Your task to perform on an android device: change the clock style Image 0: 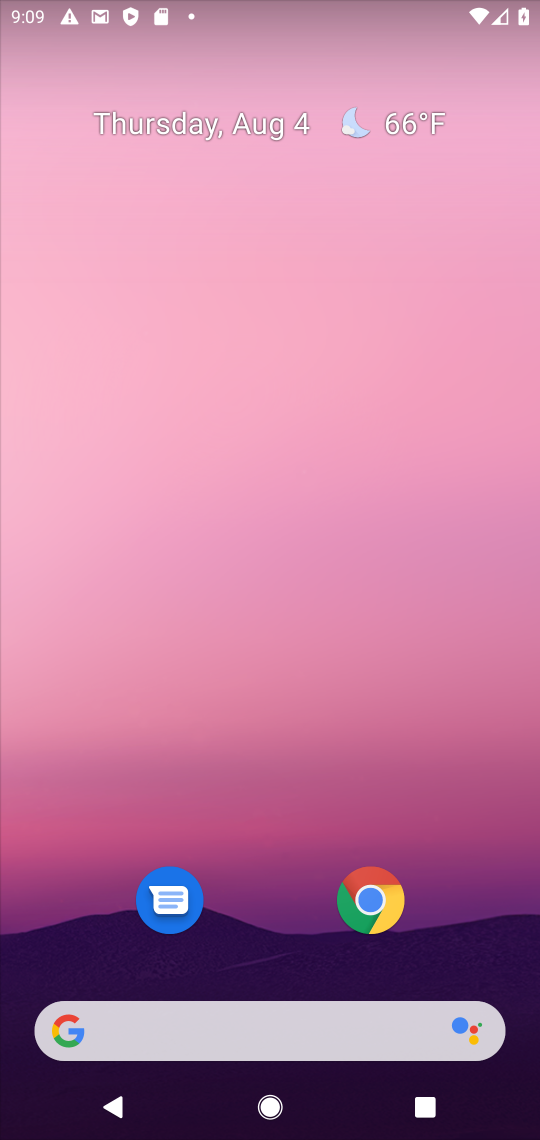
Step 0: drag from (261, 942) to (83, 118)
Your task to perform on an android device: change the clock style Image 1: 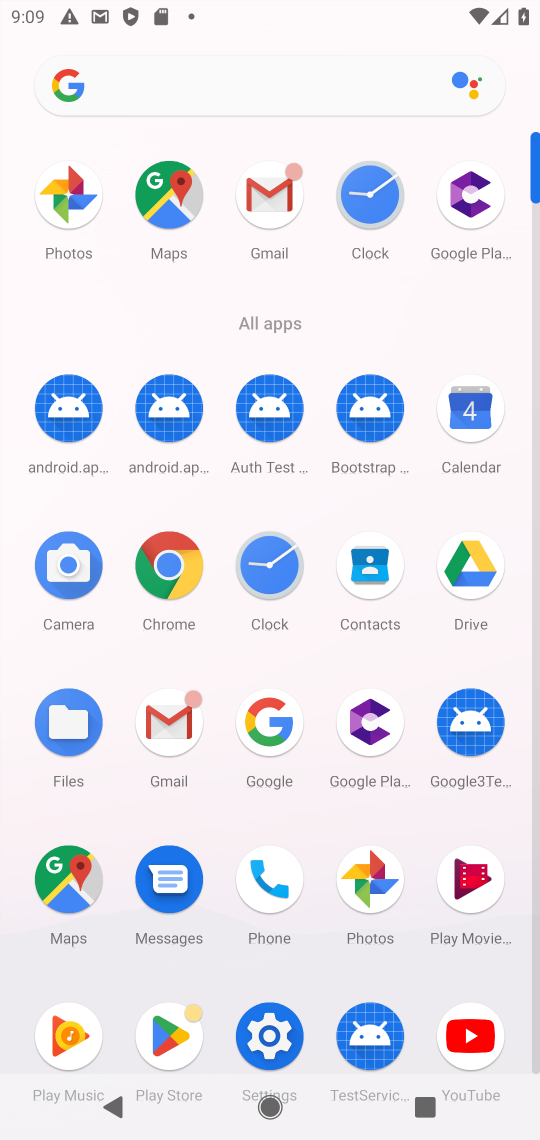
Step 1: click (266, 577)
Your task to perform on an android device: change the clock style Image 2: 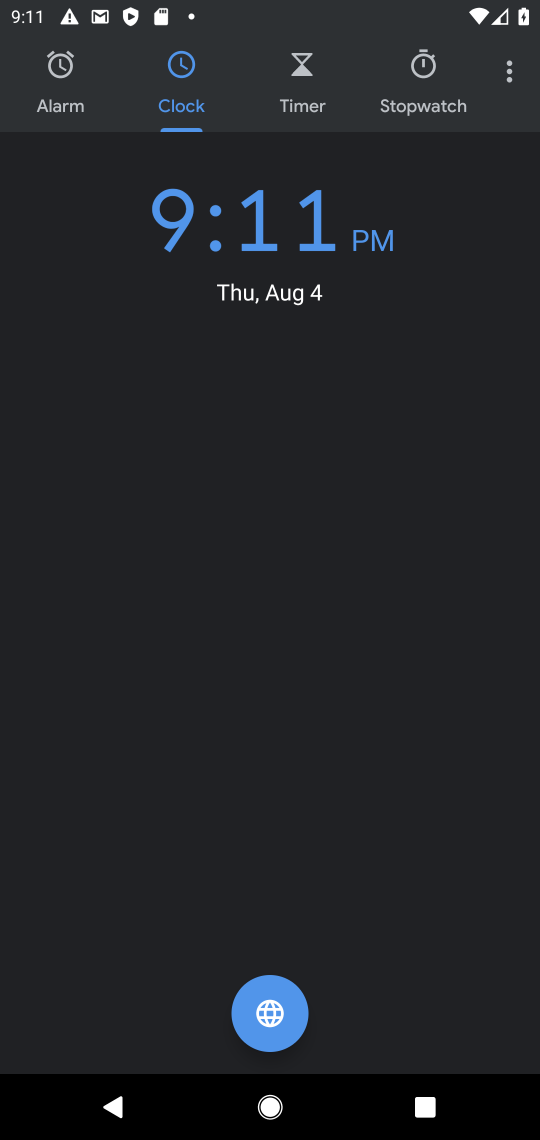
Step 2: click (514, 84)
Your task to perform on an android device: change the clock style Image 3: 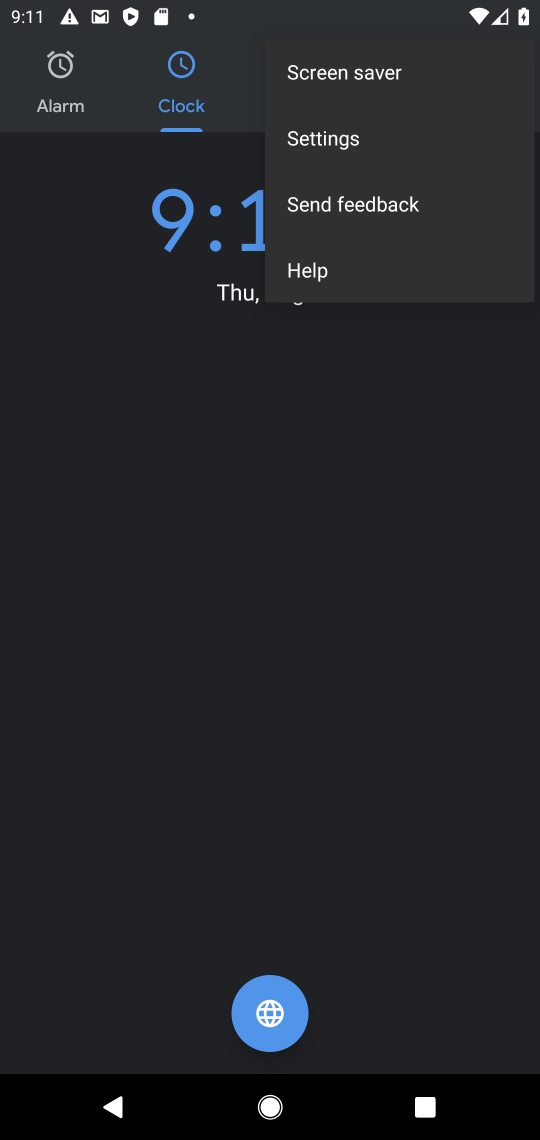
Step 3: click (332, 142)
Your task to perform on an android device: change the clock style Image 4: 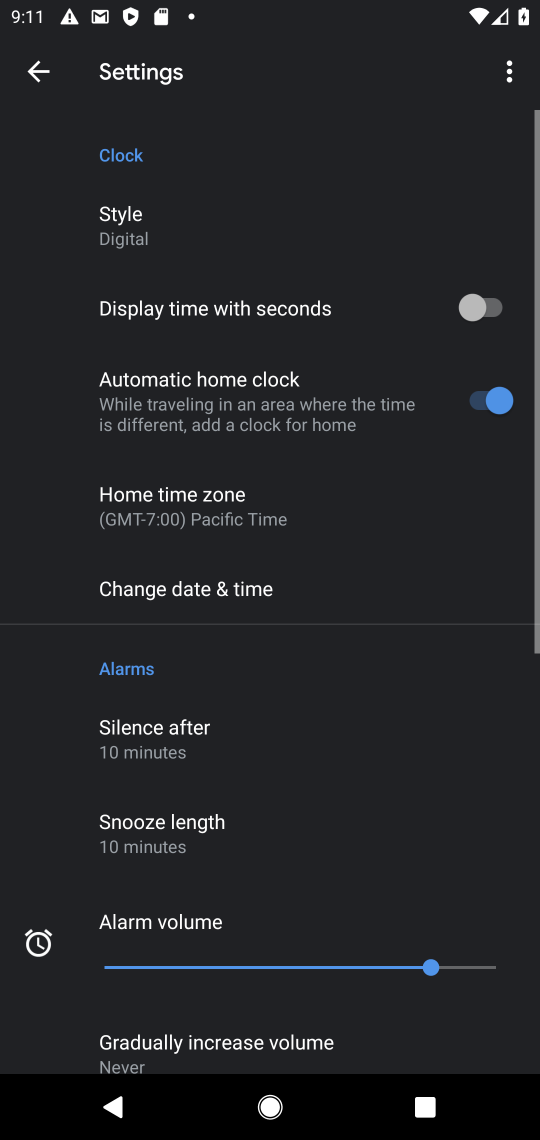
Step 4: click (162, 219)
Your task to perform on an android device: change the clock style Image 5: 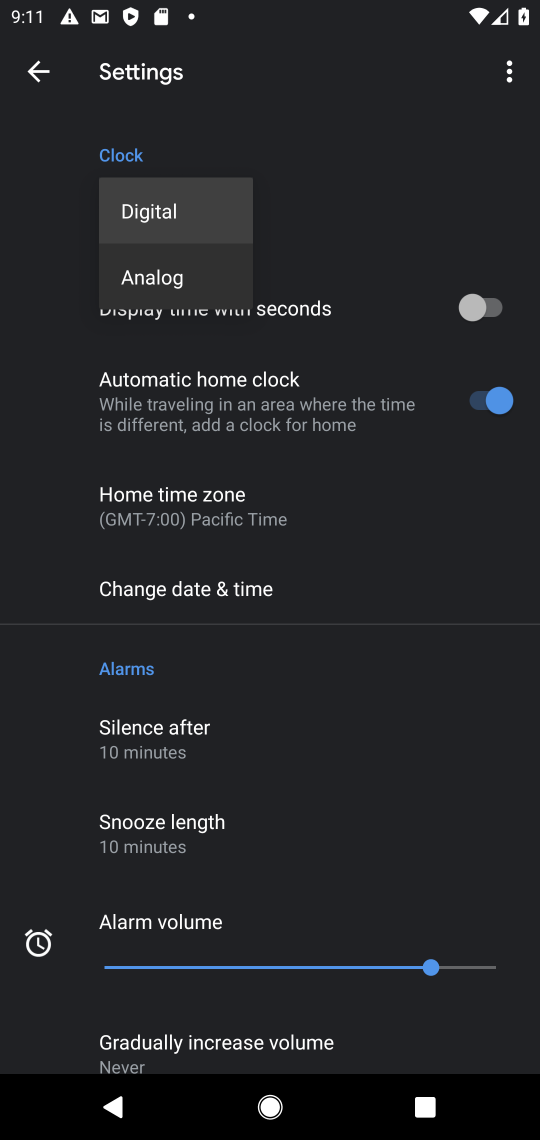
Step 5: click (149, 288)
Your task to perform on an android device: change the clock style Image 6: 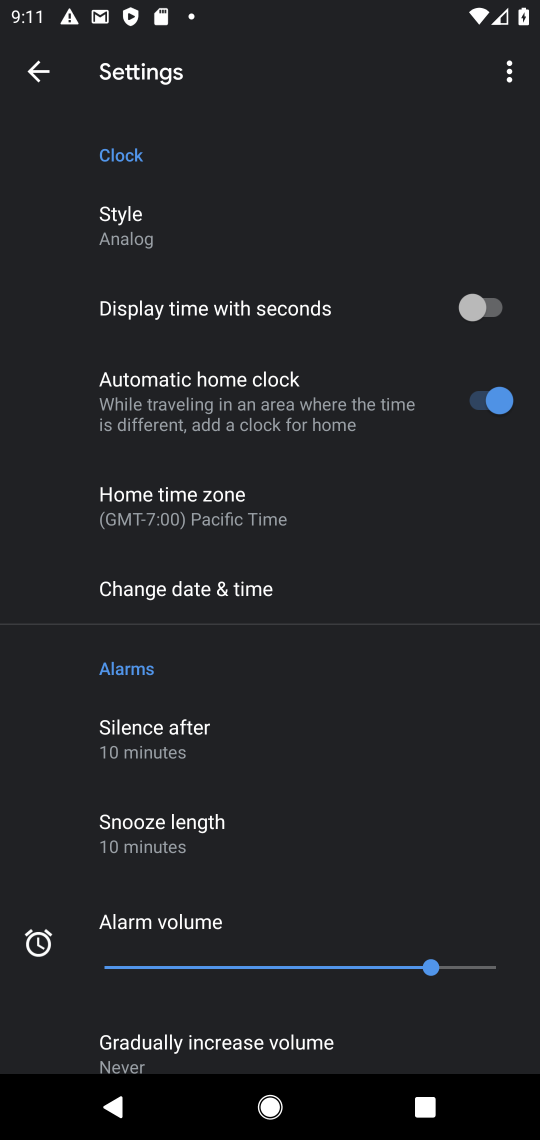
Step 6: task complete